Your task to perform on an android device: read, delete, or share a saved page in the chrome app Image 0: 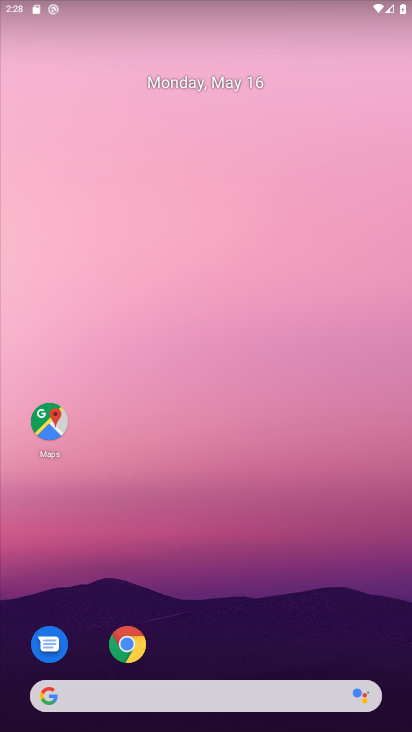
Step 0: click (128, 645)
Your task to perform on an android device: read, delete, or share a saved page in the chrome app Image 1: 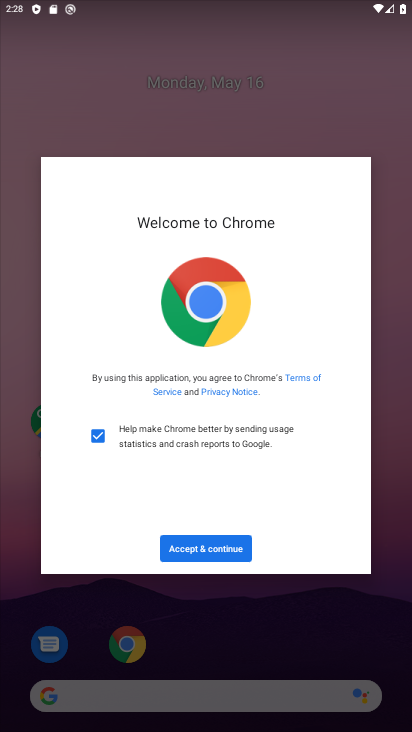
Step 1: click (224, 548)
Your task to perform on an android device: read, delete, or share a saved page in the chrome app Image 2: 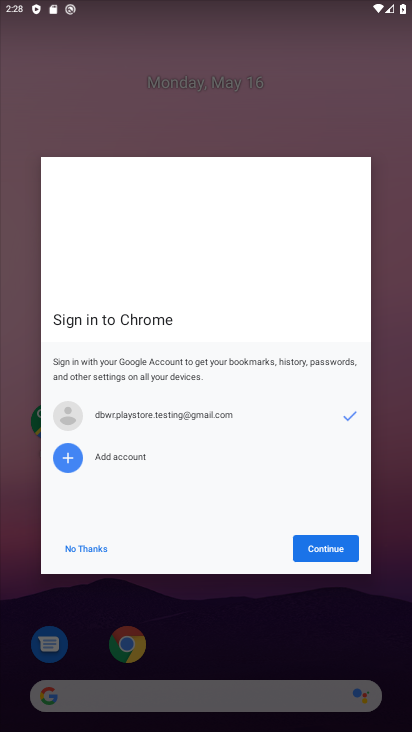
Step 2: click (323, 547)
Your task to perform on an android device: read, delete, or share a saved page in the chrome app Image 3: 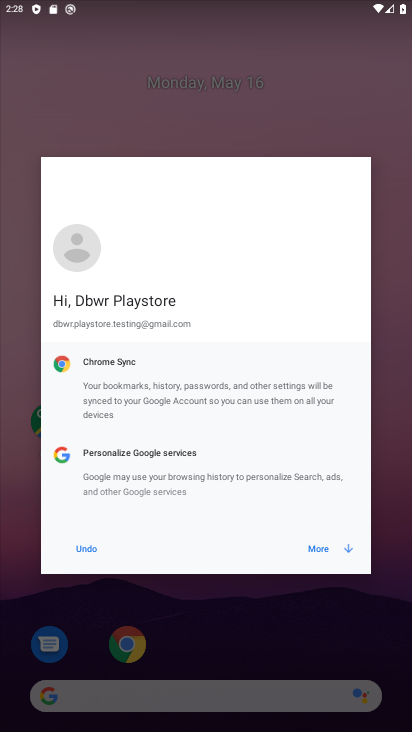
Step 3: click (317, 551)
Your task to perform on an android device: read, delete, or share a saved page in the chrome app Image 4: 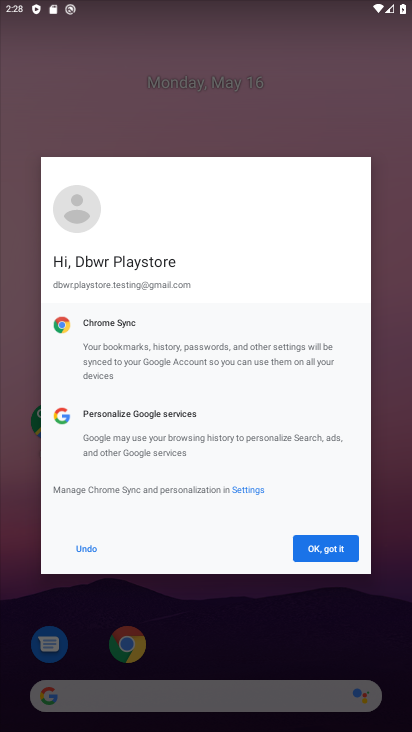
Step 4: click (317, 551)
Your task to perform on an android device: read, delete, or share a saved page in the chrome app Image 5: 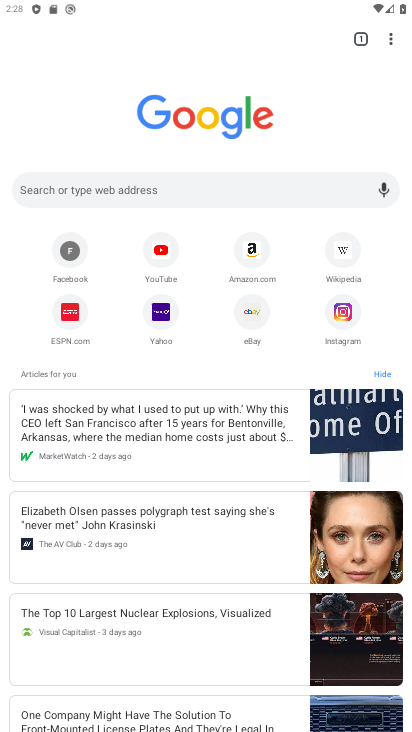
Step 5: task complete